Your task to perform on an android device: Turn off the flashlight Image 0: 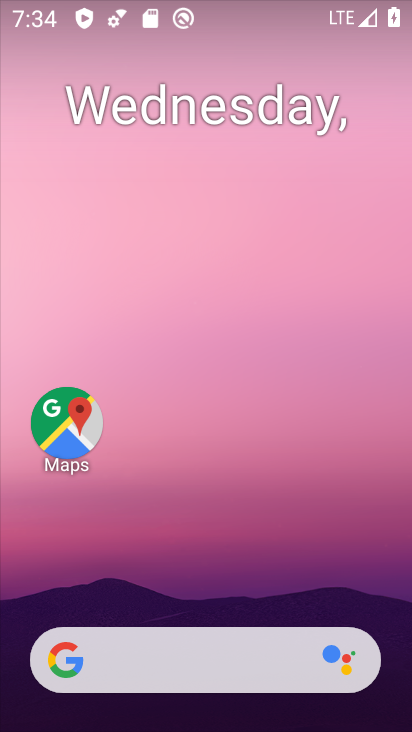
Step 0: drag from (214, 614) to (143, 224)
Your task to perform on an android device: Turn off the flashlight Image 1: 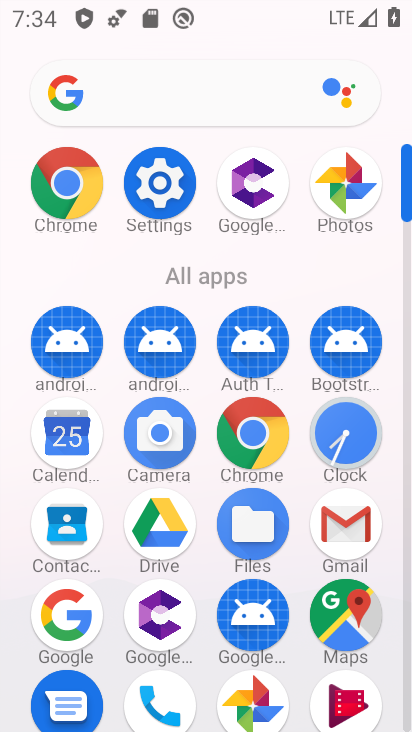
Step 1: click (151, 193)
Your task to perform on an android device: Turn off the flashlight Image 2: 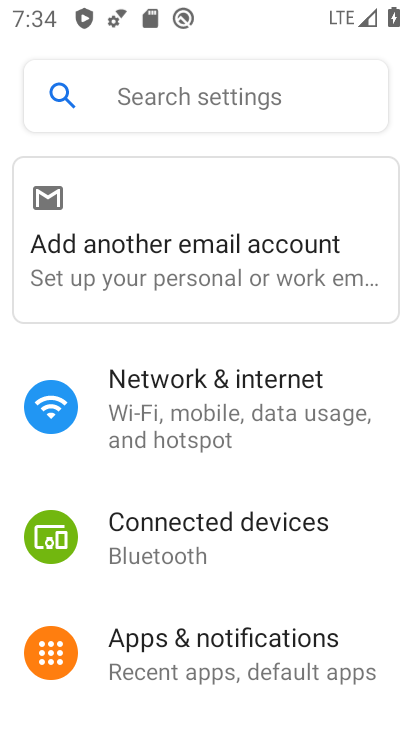
Step 2: task complete